Your task to perform on an android device: change the clock display to show seconds Image 0: 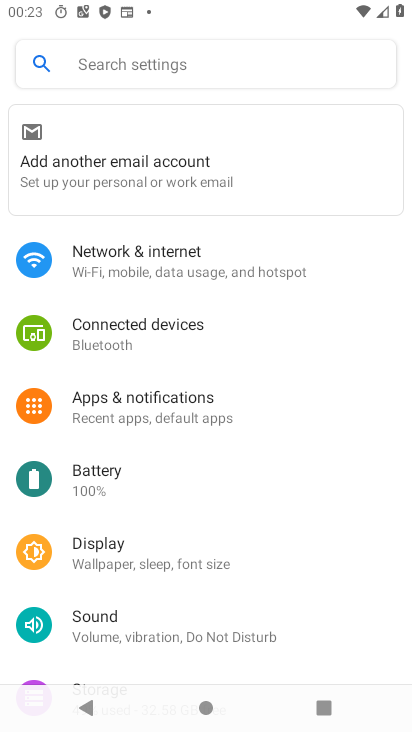
Step 0: press home button
Your task to perform on an android device: change the clock display to show seconds Image 1: 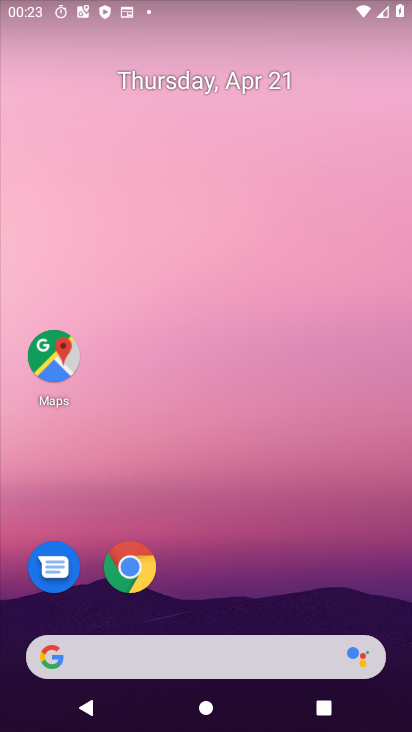
Step 1: drag from (221, 602) to (250, 237)
Your task to perform on an android device: change the clock display to show seconds Image 2: 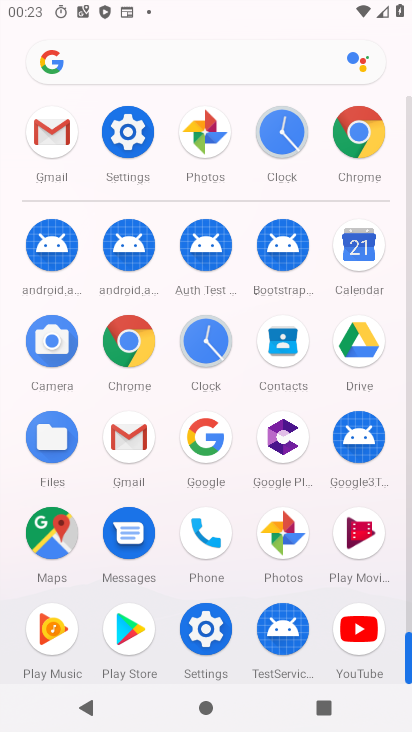
Step 2: click (209, 332)
Your task to perform on an android device: change the clock display to show seconds Image 3: 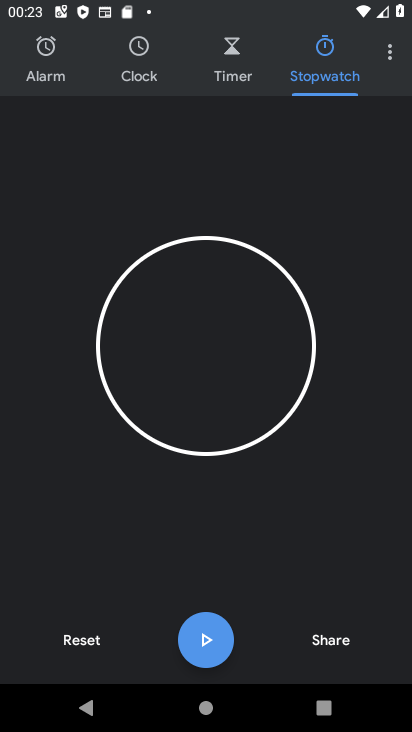
Step 3: click (384, 53)
Your task to perform on an android device: change the clock display to show seconds Image 4: 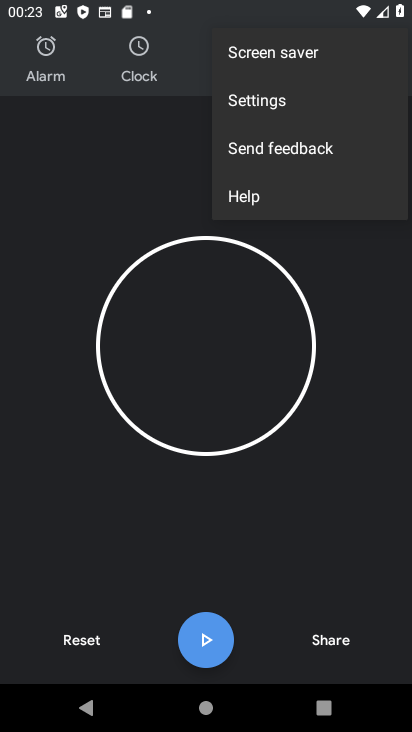
Step 4: click (281, 111)
Your task to perform on an android device: change the clock display to show seconds Image 5: 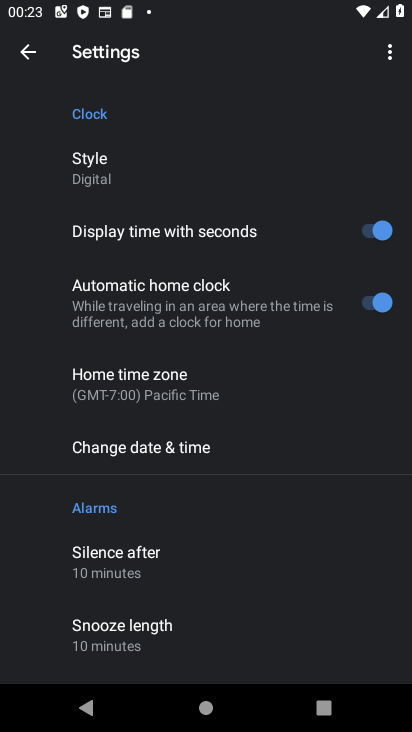
Step 5: click (118, 178)
Your task to perform on an android device: change the clock display to show seconds Image 6: 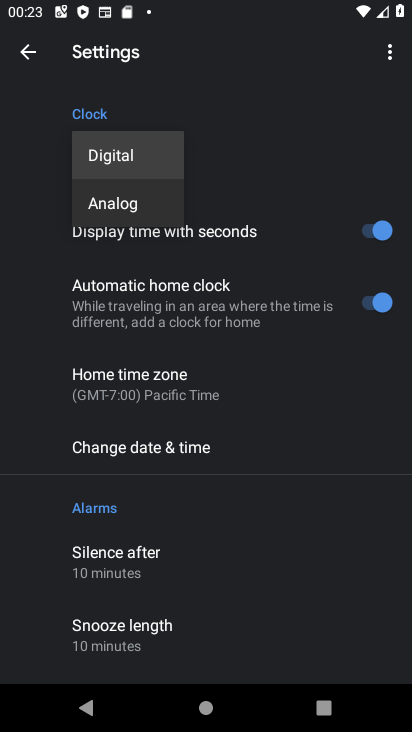
Step 6: task complete